Your task to perform on an android device: Open maps Image 0: 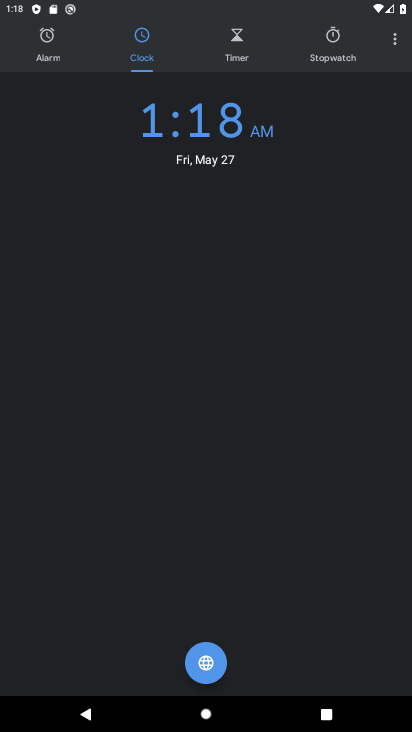
Step 0: press home button
Your task to perform on an android device: Open maps Image 1: 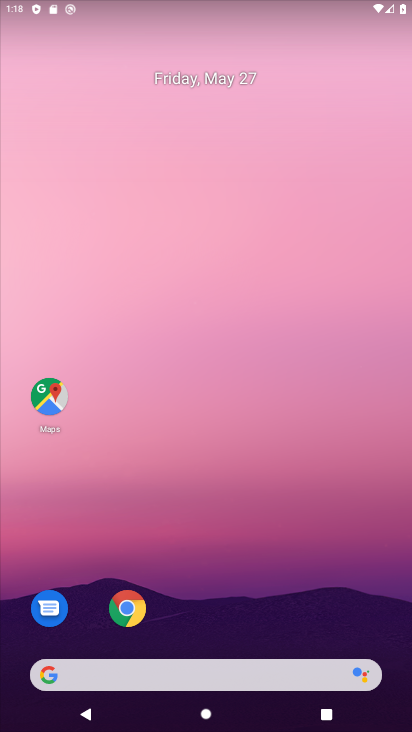
Step 1: click (47, 395)
Your task to perform on an android device: Open maps Image 2: 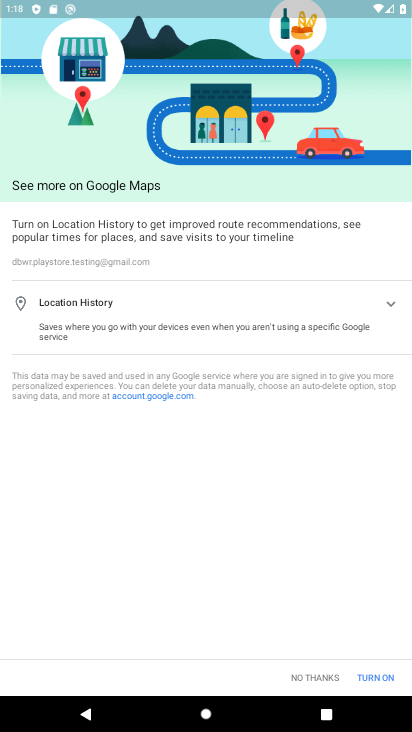
Step 2: click (307, 671)
Your task to perform on an android device: Open maps Image 3: 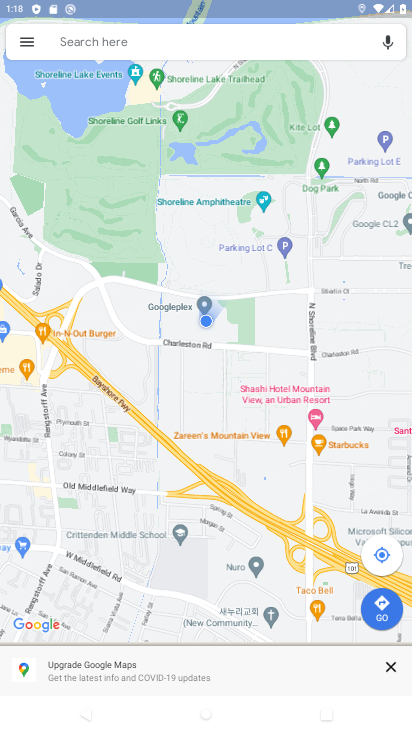
Step 3: task complete